Your task to perform on an android device: Open internet settings Image 0: 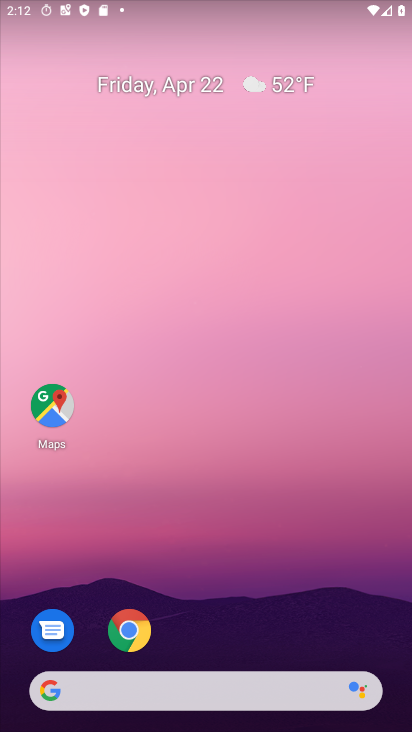
Step 0: drag from (369, 601) to (347, 184)
Your task to perform on an android device: Open internet settings Image 1: 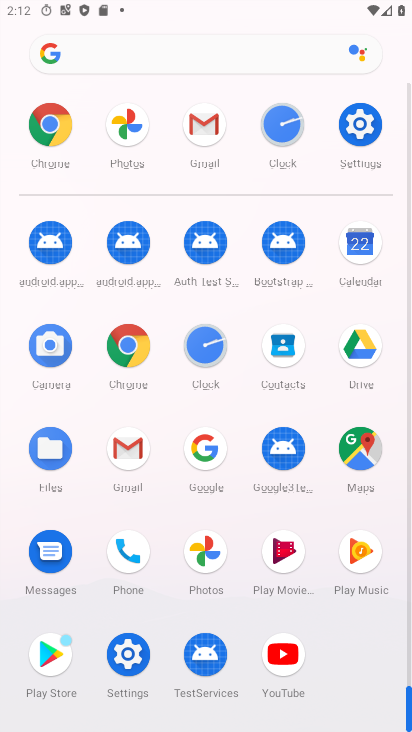
Step 1: click (350, 120)
Your task to perform on an android device: Open internet settings Image 2: 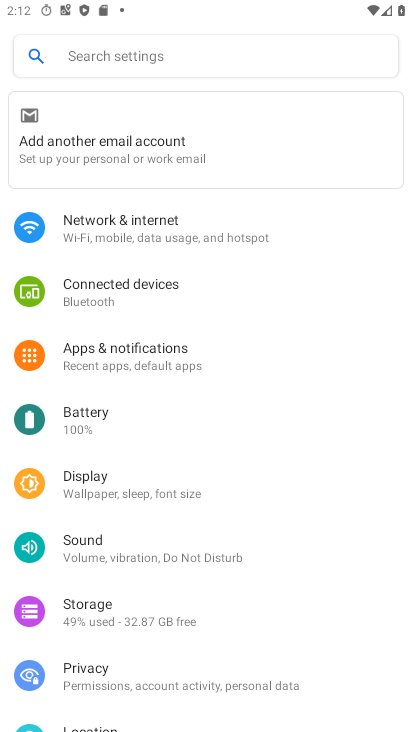
Step 2: click (113, 223)
Your task to perform on an android device: Open internet settings Image 3: 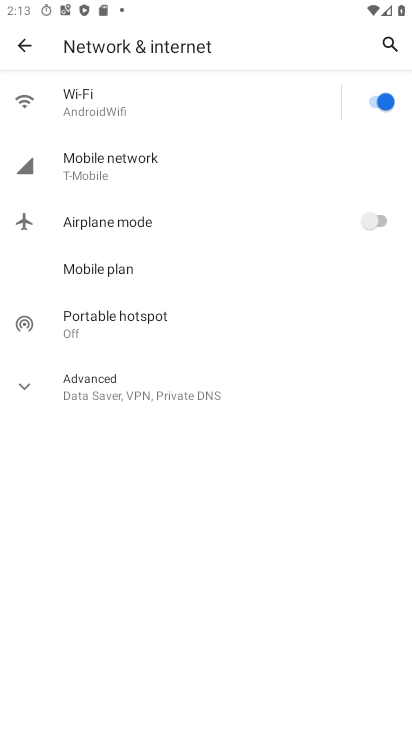
Step 3: click (80, 162)
Your task to perform on an android device: Open internet settings Image 4: 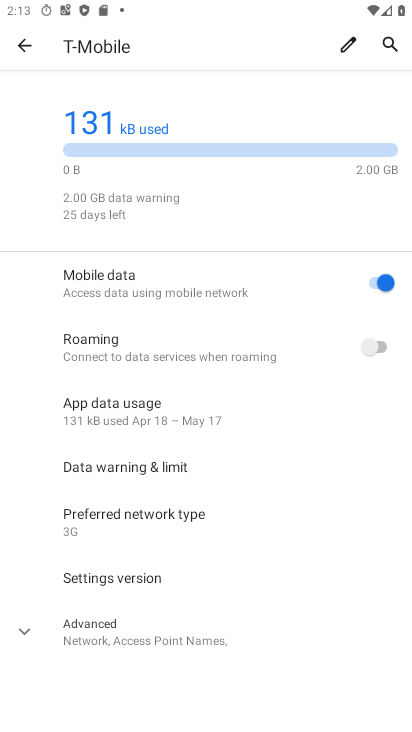
Step 4: task complete